Your task to perform on an android device: Turn off the flashlight Image 0: 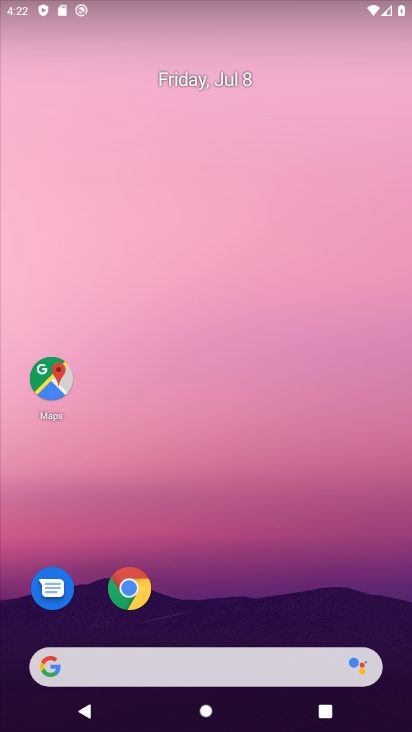
Step 0: press home button
Your task to perform on an android device: Turn off the flashlight Image 1: 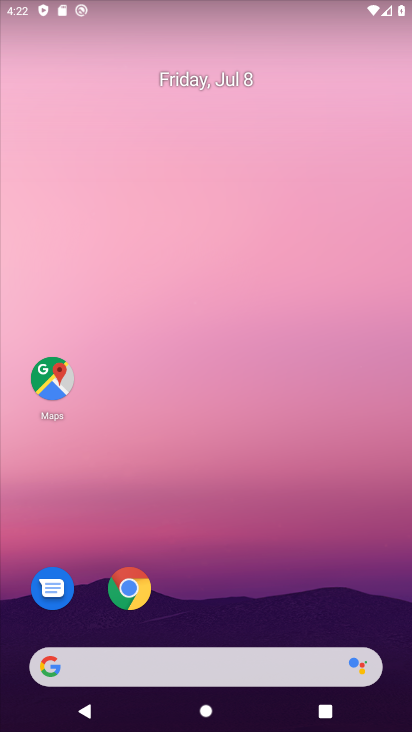
Step 1: drag from (250, 0) to (253, 375)
Your task to perform on an android device: Turn off the flashlight Image 2: 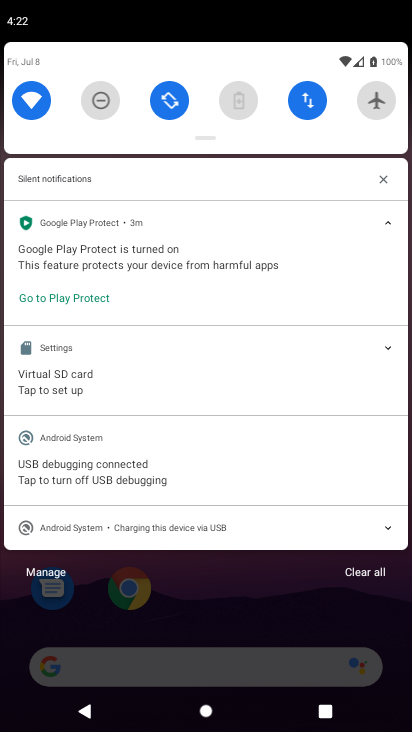
Step 2: drag from (332, 139) to (327, 626)
Your task to perform on an android device: Turn off the flashlight Image 3: 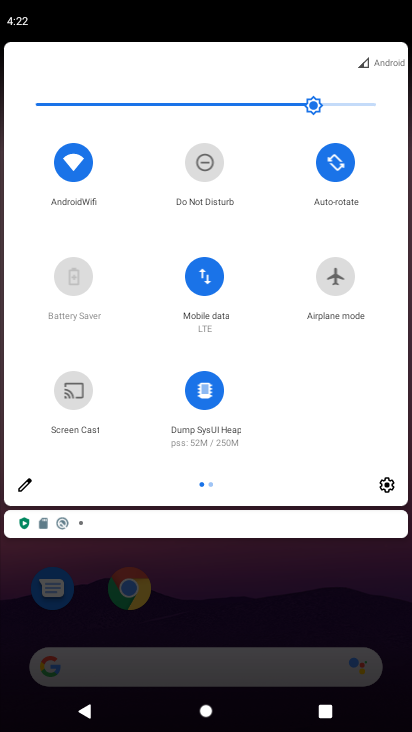
Step 3: drag from (344, 382) to (8, 373)
Your task to perform on an android device: Turn off the flashlight Image 4: 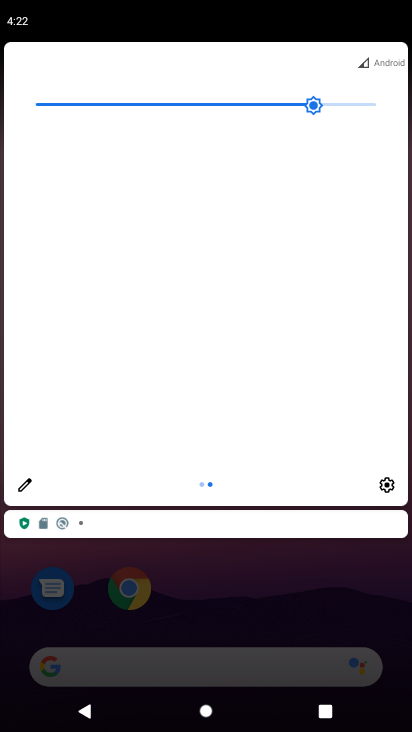
Step 4: drag from (166, 361) to (322, 374)
Your task to perform on an android device: Turn off the flashlight Image 5: 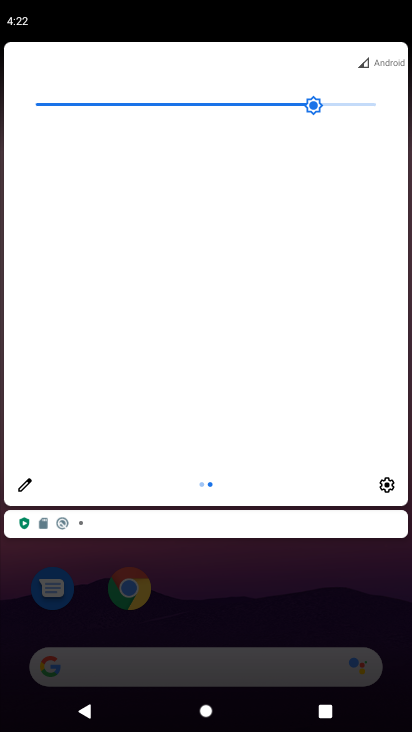
Step 5: click (244, 597)
Your task to perform on an android device: Turn off the flashlight Image 6: 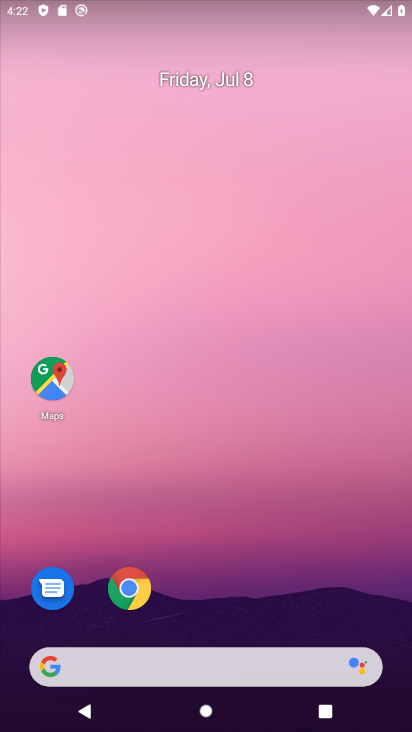
Step 6: task complete